Your task to perform on an android device: Go to display settings Image 0: 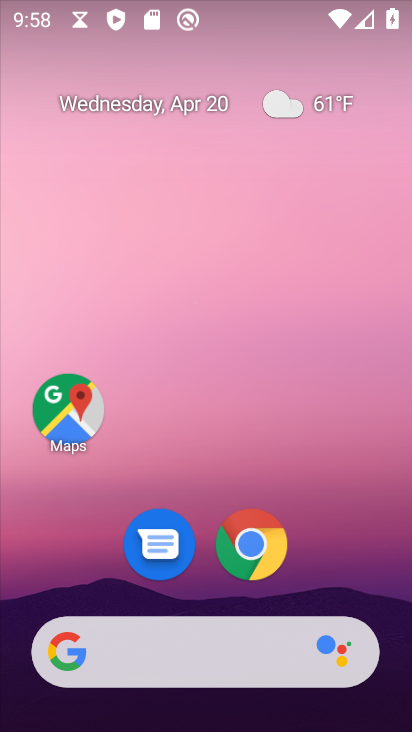
Step 0: drag from (206, 571) to (320, 22)
Your task to perform on an android device: Go to display settings Image 1: 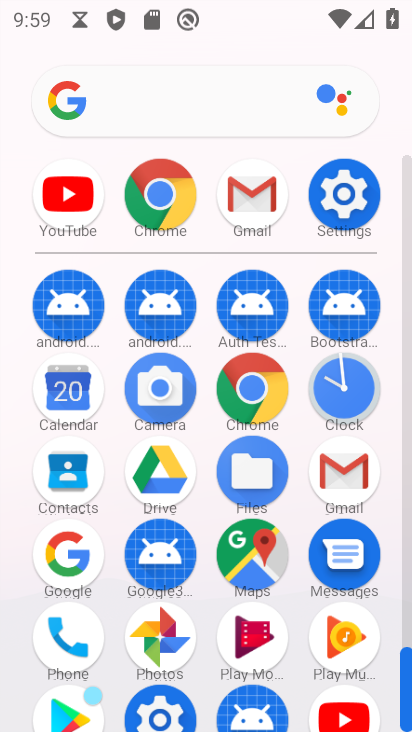
Step 1: click (354, 191)
Your task to perform on an android device: Go to display settings Image 2: 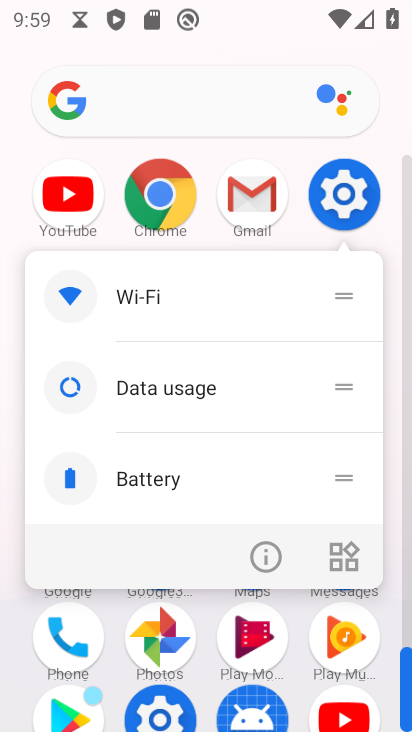
Step 2: click (350, 192)
Your task to perform on an android device: Go to display settings Image 3: 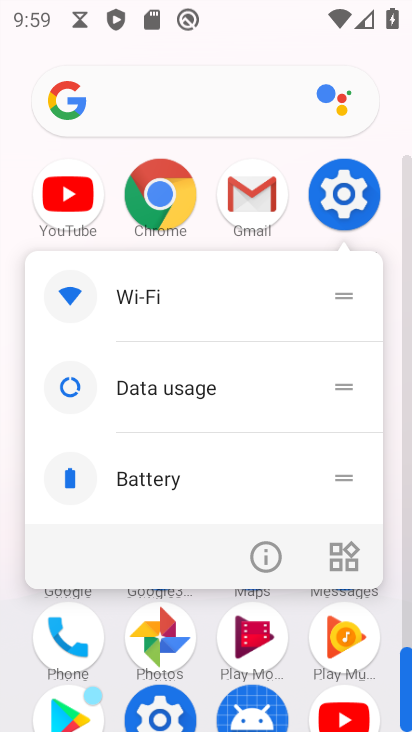
Step 3: click (348, 192)
Your task to perform on an android device: Go to display settings Image 4: 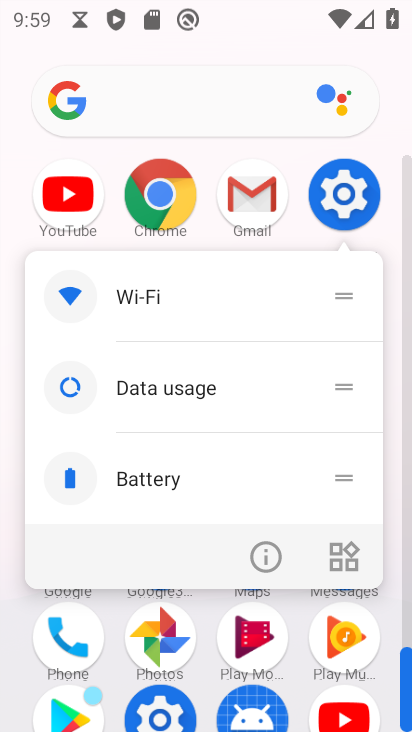
Step 4: click (344, 195)
Your task to perform on an android device: Go to display settings Image 5: 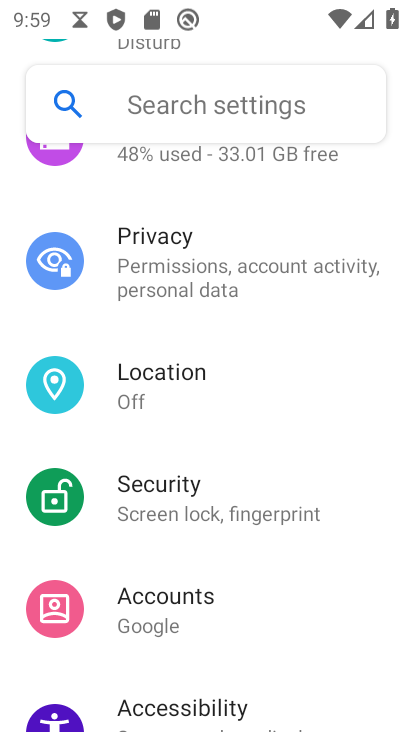
Step 5: drag from (275, 357) to (200, 599)
Your task to perform on an android device: Go to display settings Image 6: 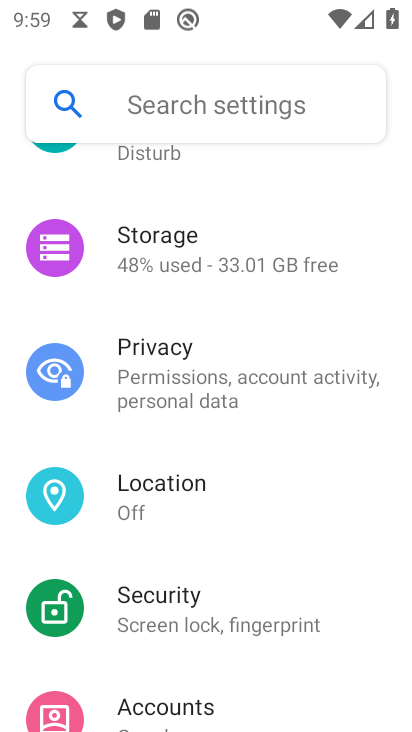
Step 6: drag from (248, 188) to (204, 629)
Your task to perform on an android device: Go to display settings Image 7: 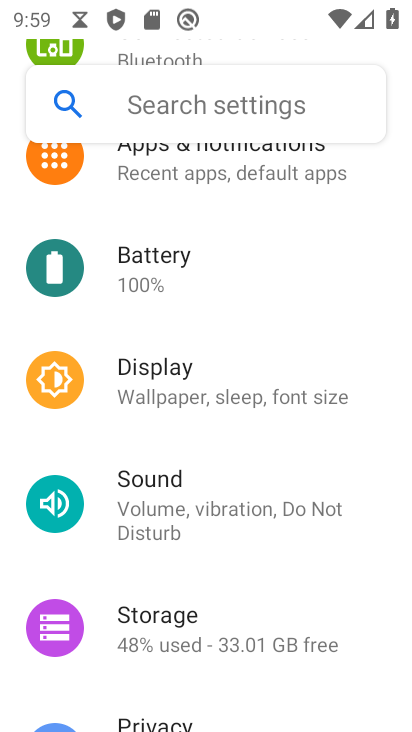
Step 7: click (174, 377)
Your task to perform on an android device: Go to display settings Image 8: 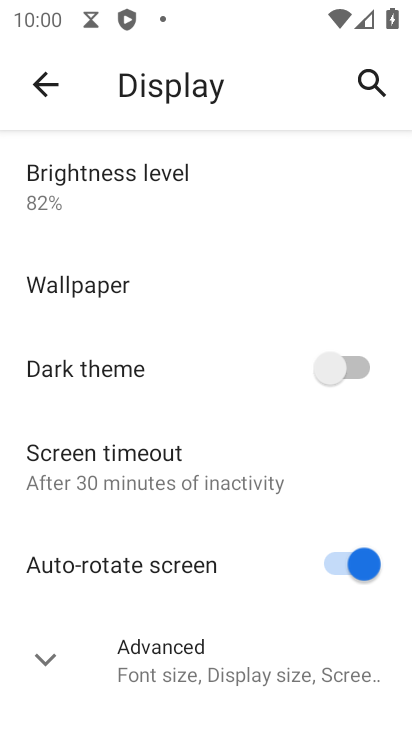
Step 8: task complete